Your task to perform on an android device: change the clock display to digital Image 0: 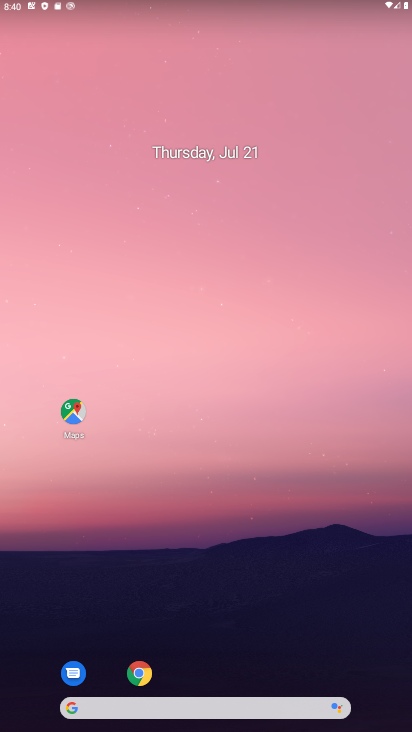
Step 0: drag from (186, 693) to (168, 2)
Your task to perform on an android device: change the clock display to digital Image 1: 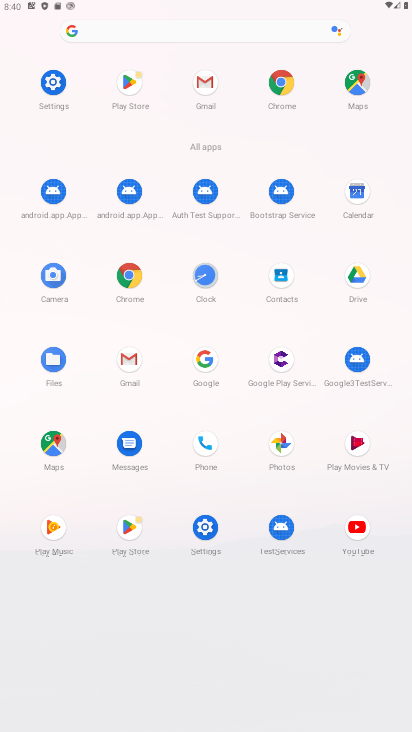
Step 1: click (204, 277)
Your task to perform on an android device: change the clock display to digital Image 2: 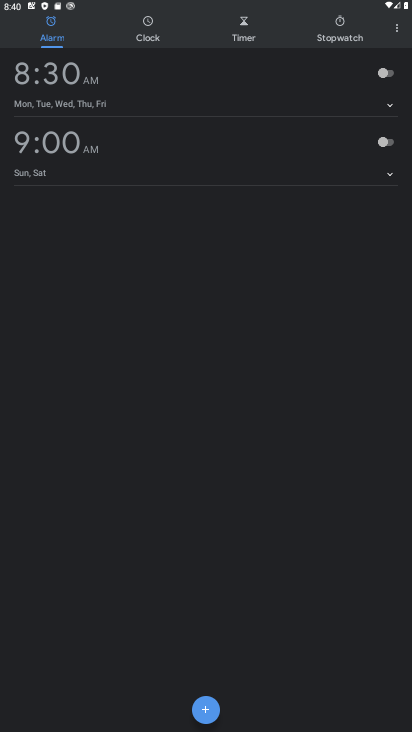
Step 2: click (398, 34)
Your task to perform on an android device: change the clock display to digital Image 3: 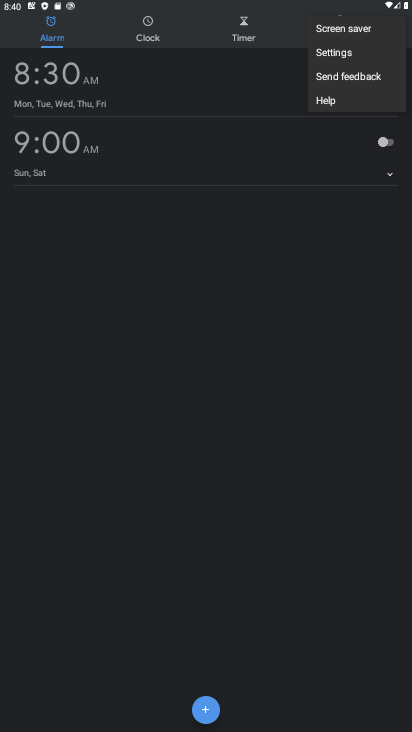
Step 3: click (329, 58)
Your task to perform on an android device: change the clock display to digital Image 4: 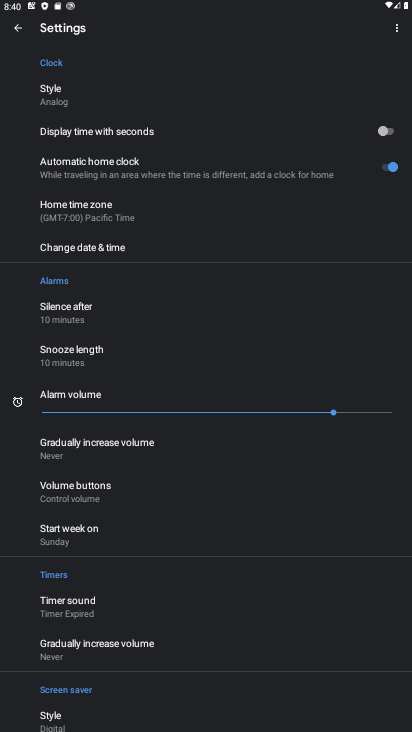
Step 4: click (41, 92)
Your task to perform on an android device: change the clock display to digital Image 5: 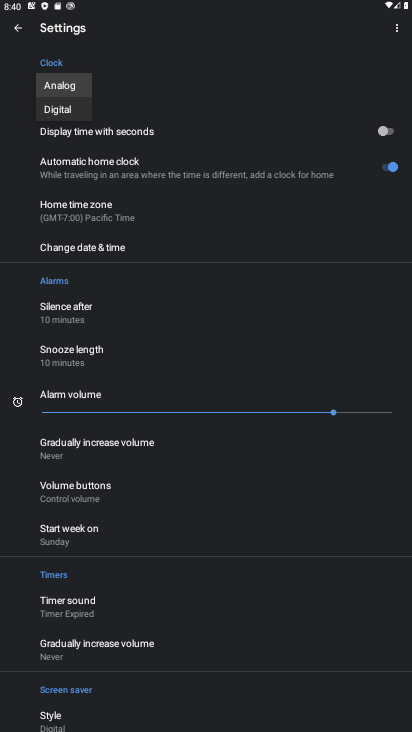
Step 5: click (53, 110)
Your task to perform on an android device: change the clock display to digital Image 6: 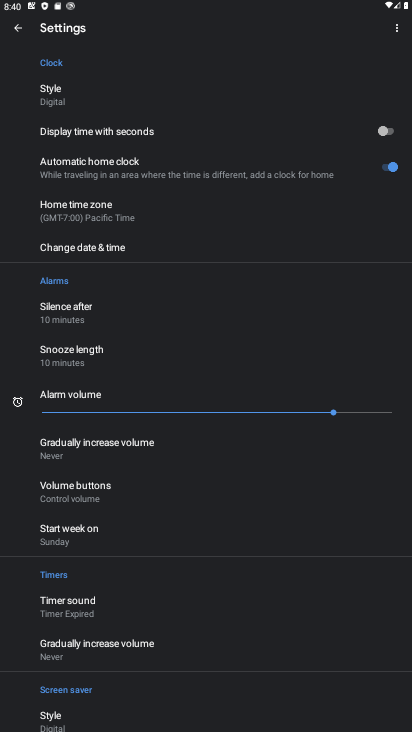
Step 6: task complete